Your task to perform on an android device: Look up the top rated 18v miter saw on Home Depot. Image 0: 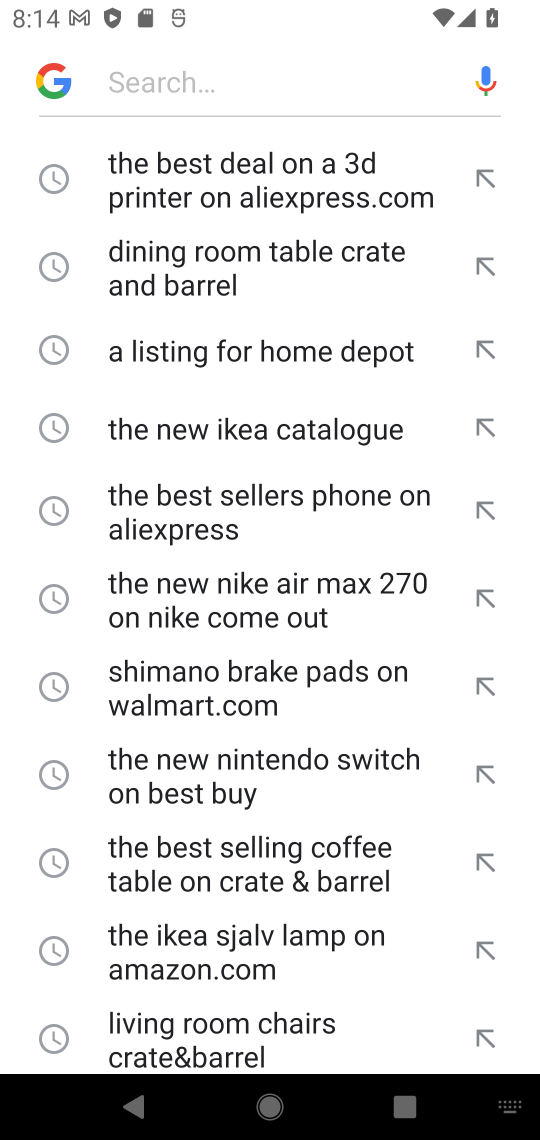
Step 0: type "the top rated 18v miter saw on Home Depot"
Your task to perform on an android device: Look up the top rated 18v miter saw on Home Depot. Image 1: 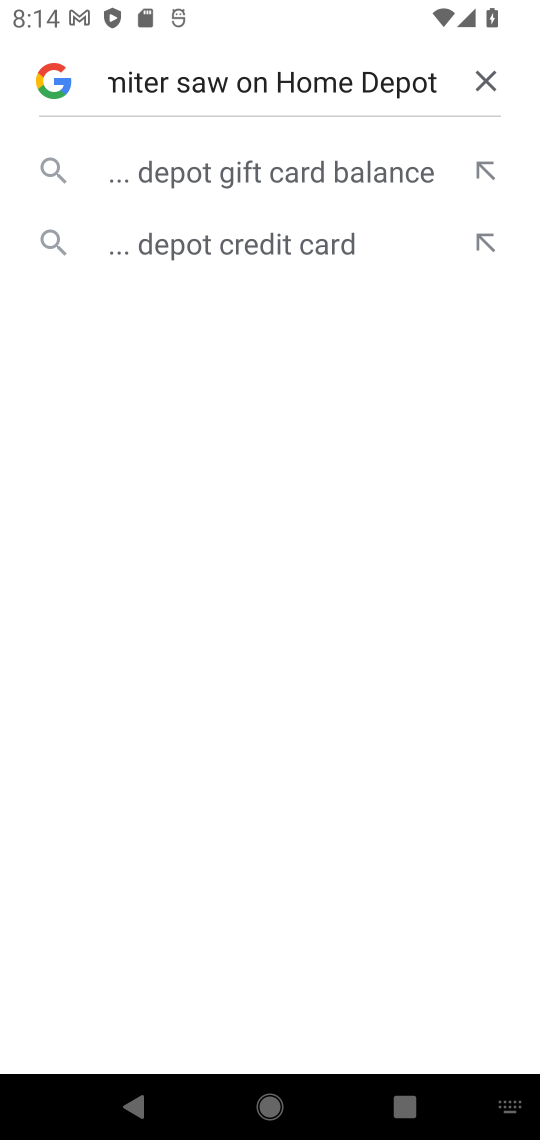
Step 1: click (356, 171)
Your task to perform on an android device: Look up the top rated 18v miter saw on Home Depot. Image 2: 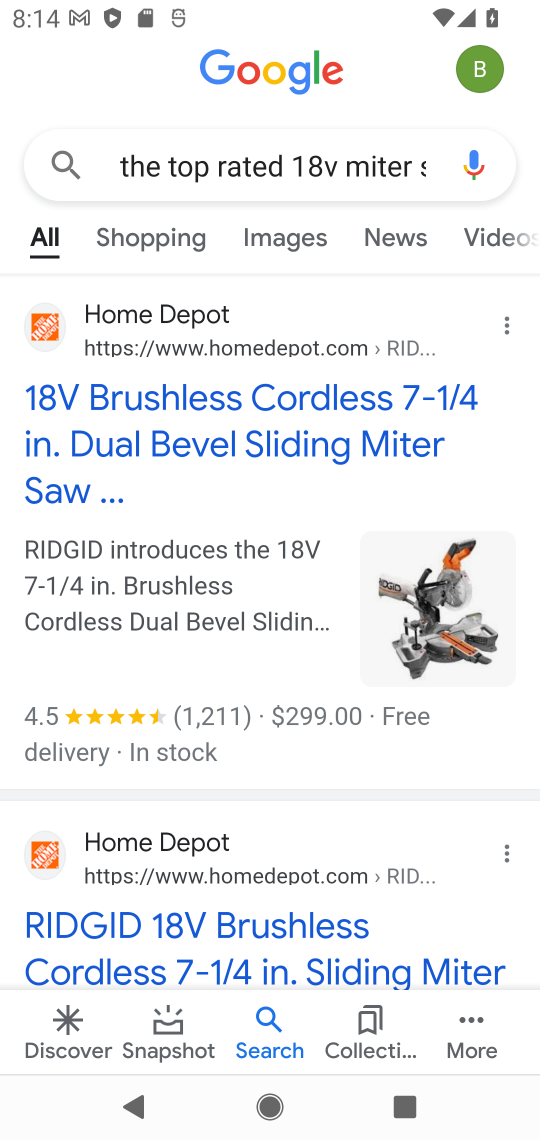
Step 2: task complete